Your task to perform on an android device: Is it going to rain this weekend? Image 0: 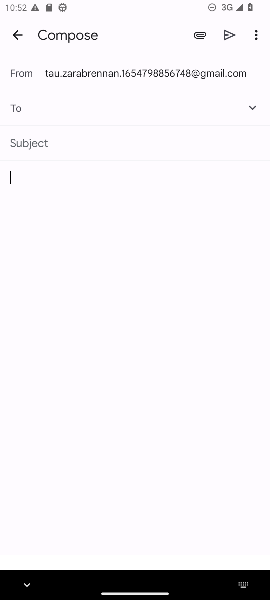
Step 0: press home button
Your task to perform on an android device: Is it going to rain this weekend? Image 1: 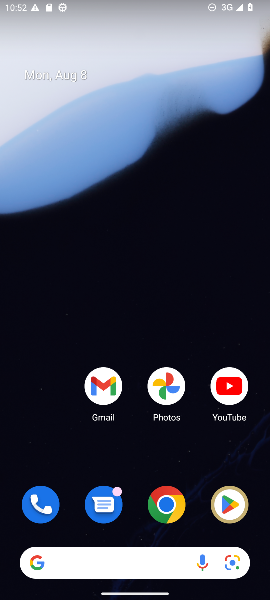
Step 1: click (35, 565)
Your task to perform on an android device: Is it going to rain this weekend? Image 2: 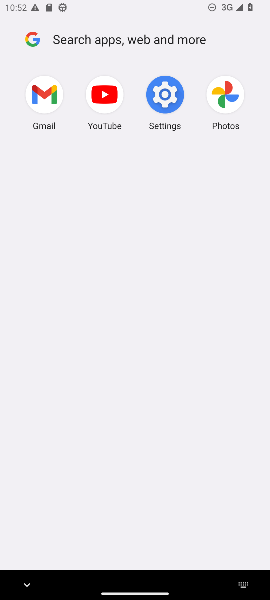
Step 2: click (41, 39)
Your task to perform on an android device: Is it going to rain this weekend? Image 3: 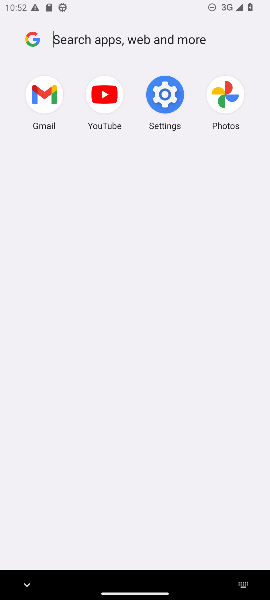
Step 3: type "google"
Your task to perform on an android device: Is it going to rain this weekend? Image 4: 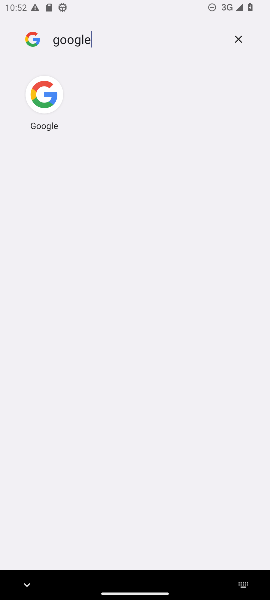
Step 4: click (45, 108)
Your task to perform on an android device: Is it going to rain this weekend? Image 5: 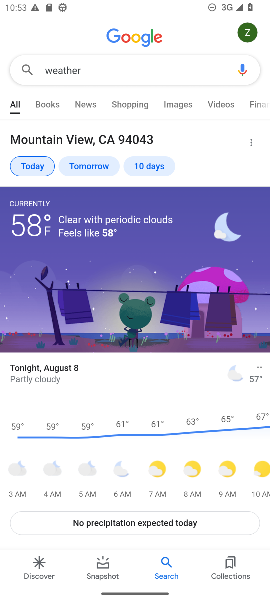
Step 5: click (145, 162)
Your task to perform on an android device: Is it going to rain this weekend? Image 6: 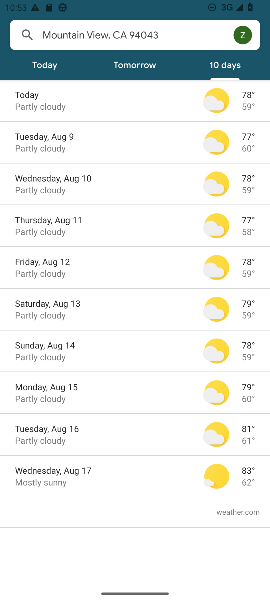
Step 6: task complete